Your task to perform on an android device: Open Wikipedia Image 0: 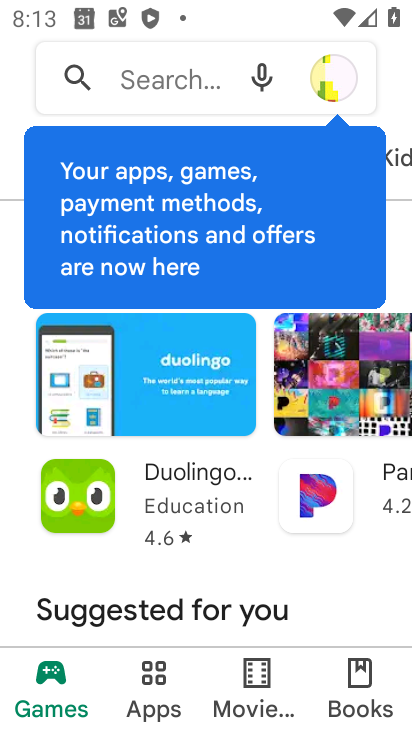
Step 0: press home button
Your task to perform on an android device: Open Wikipedia Image 1: 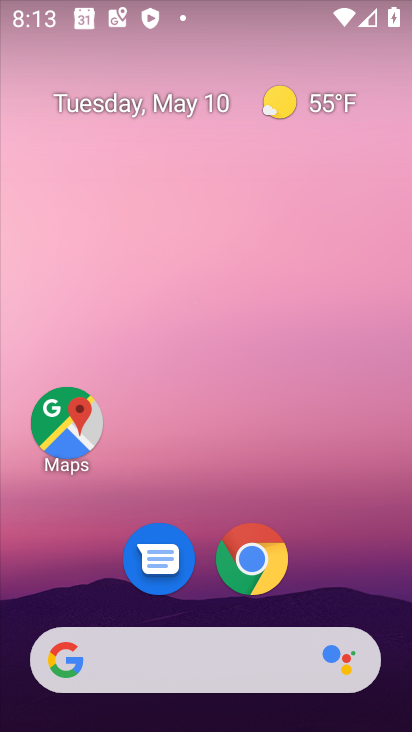
Step 1: click (264, 559)
Your task to perform on an android device: Open Wikipedia Image 2: 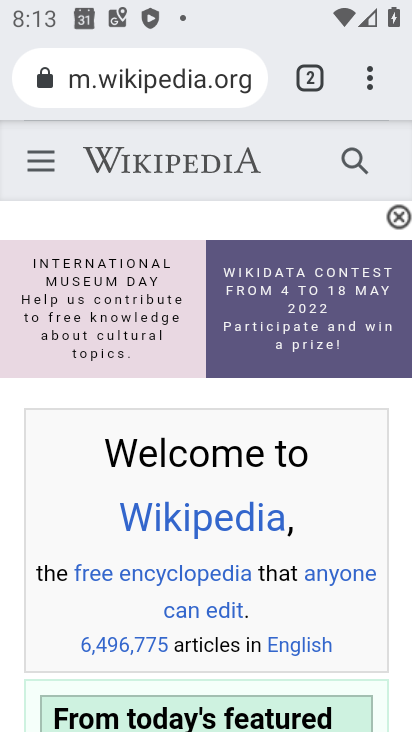
Step 2: task complete